Your task to perform on an android device: turn on bluetooth scan Image 0: 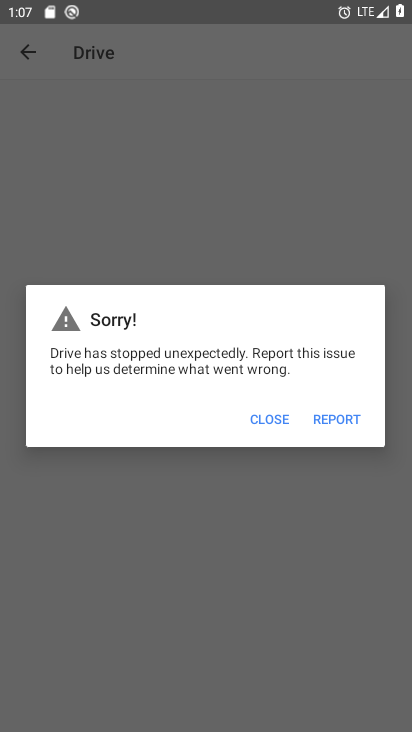
Step 0: press home button
Your task to perform on an android device: turn on bluetooth scan Image 1: 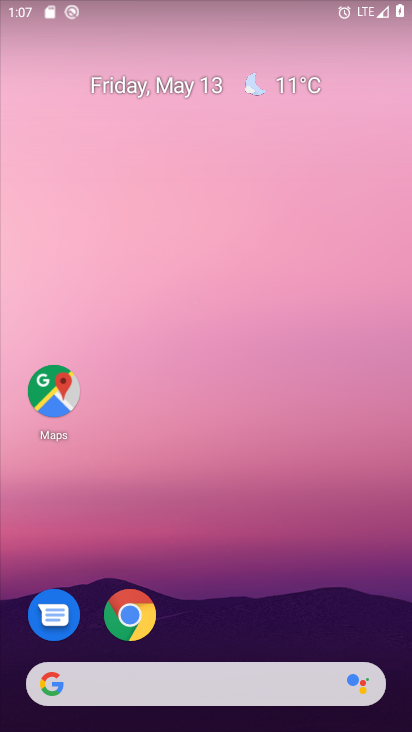
Step 1: drag from (267, 545) to (297, 7)
Your task to perform on an android device: turn on bluetooth scan Image 2: 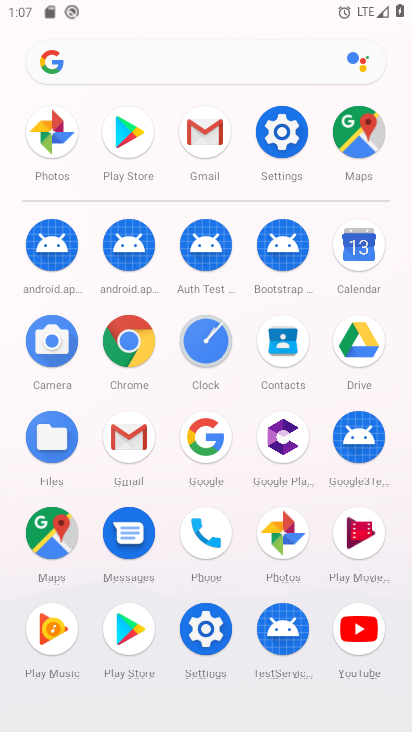
Step 2: click (281, 123)
Your task to perform on an android device: turn on bluetooth scan Image 3: 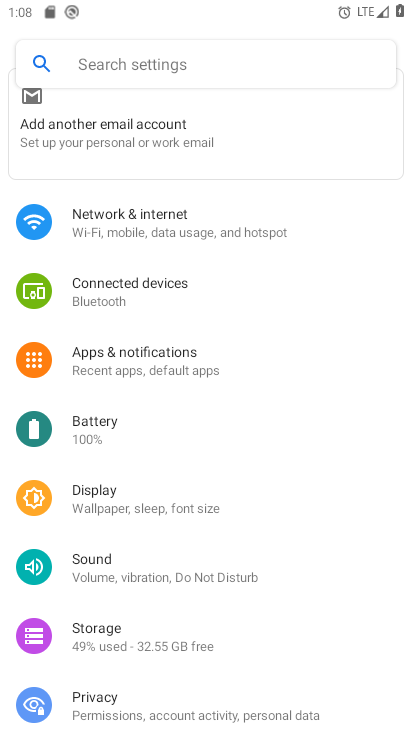
Step 3: drag from (253, 510) to (255, 251)
Your task to perform on an android device: turn on bluetooth scan Image 4: 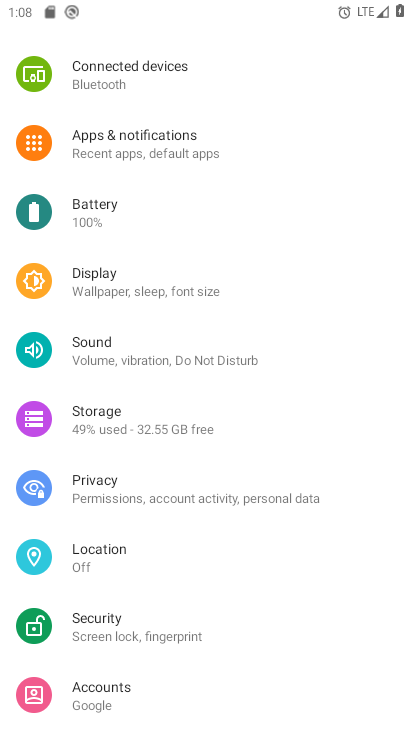
Step 4: click (192, 555)
Your task to perform on an android device: turn on bluetooth scan Image 5: 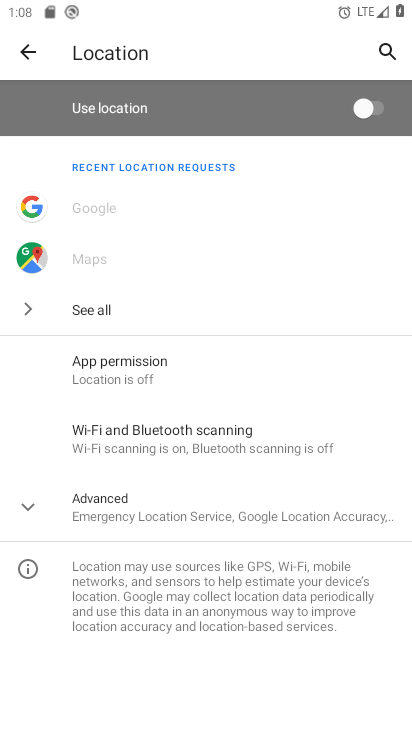
Step 5: click (287, 437)
Your task to perform on an android device: turn on bluetooth scan Image 6: 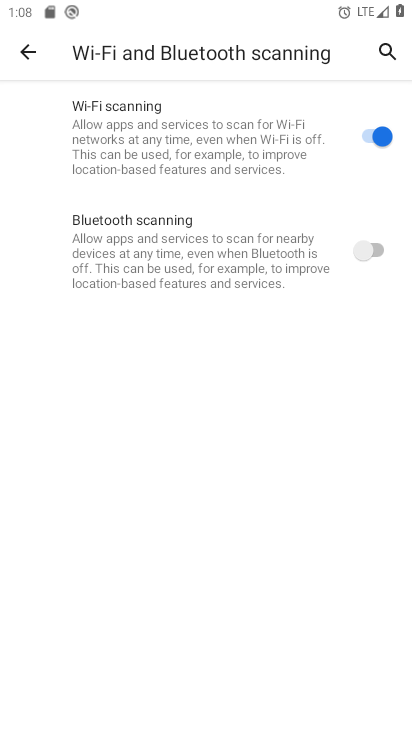
Step 6: click (365, 245)
Your task to perform on an android device: turn on bluetooth scan Image 7: 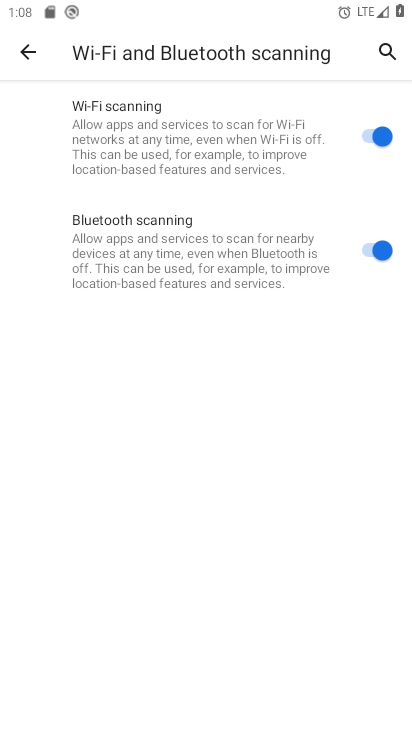
Step 7: task complete